Your task to perform on an android device: turn on translation in the chrome app Image 0: 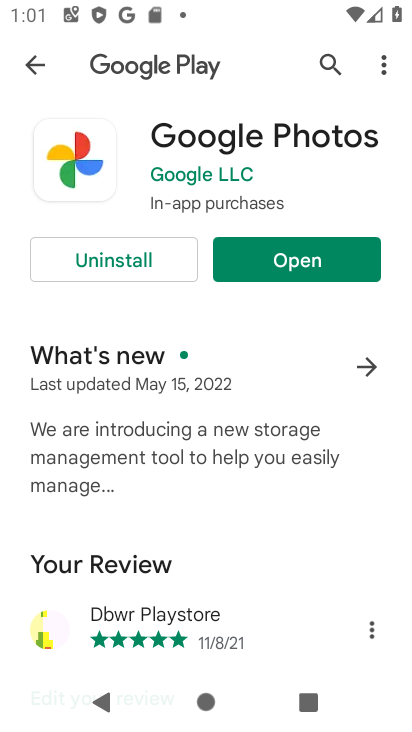
Step 0: drag from (375, 570) to (348, 488)
Your task to perform on an android device: turn on translation in the chrome app Image 1: 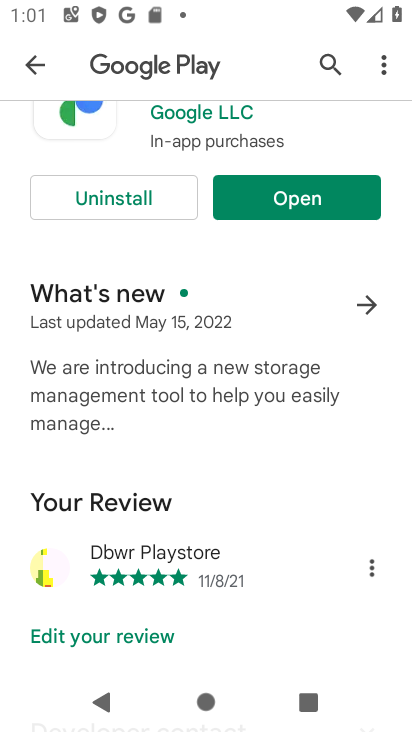
Step 1: press home button
Your task to perform on an android device: turn on translation in the chrome app Image 2: 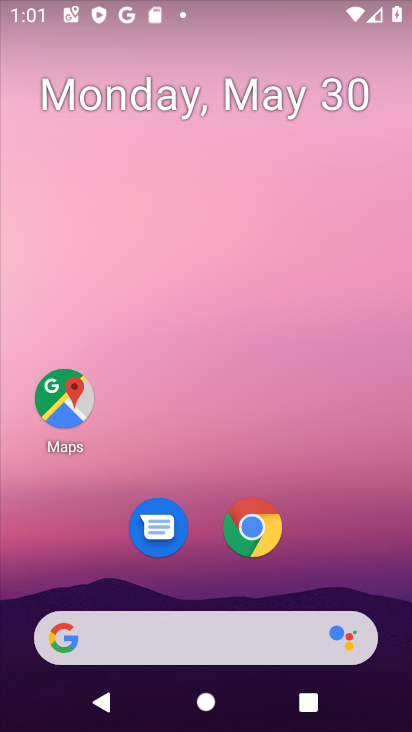
Step 2: drag from (355, 578) to (242, 66)
Your task to perform on an android device: turn on translation in the chrome app Image 3: 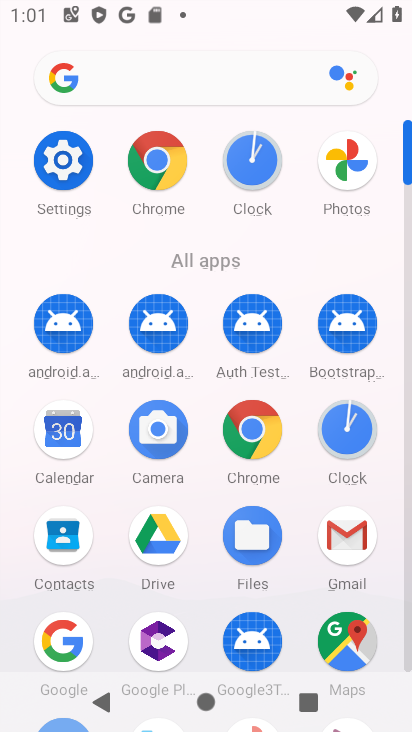
Step 3: click (158, 181)
Your task to perform on an android device: turn on translation in the chrome app Image 4: 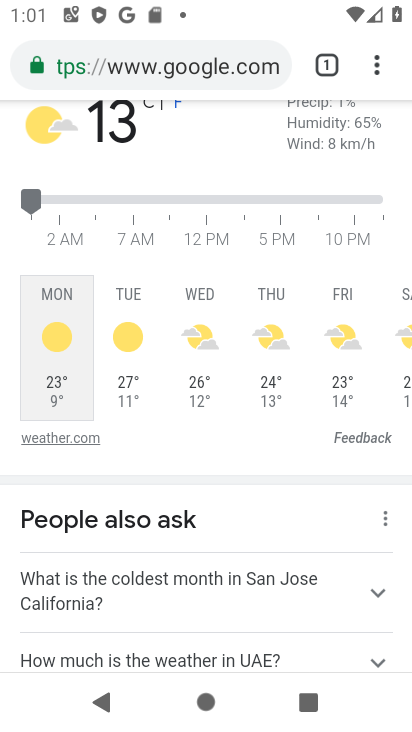
Step 4: click (375, 60)
Your task to perform on an android device: turn on translation in the chrome app Image 5: 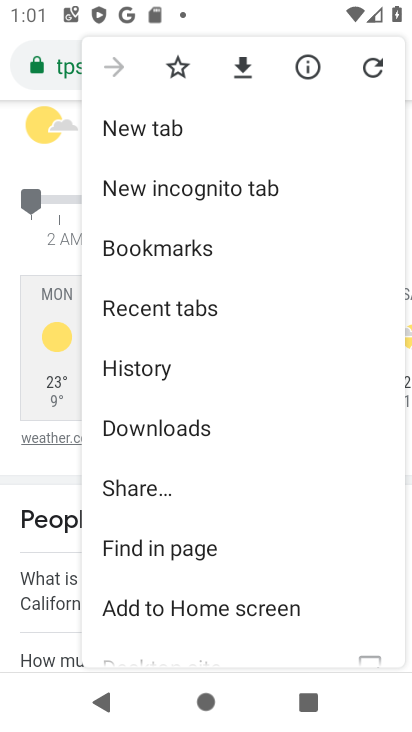
Step 5: drag from (285, 560) to (235, 145)
Your task to perform on an android device: turn on translation in the chrome app Image 6: 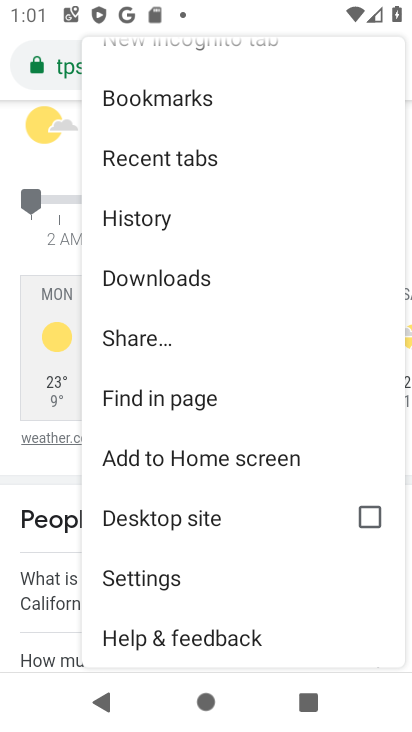
Step 6: click (179, 596)
Your task to perform on an android device: turn on translation in the chrome app Image 7: 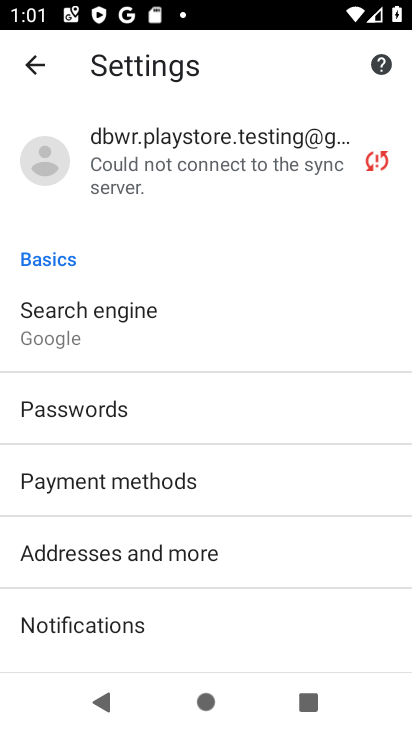
Step 7: drag from (249, 605) to (211, 241)
Your task to perform on an android device: turn on translation in the chrome app Image 8: 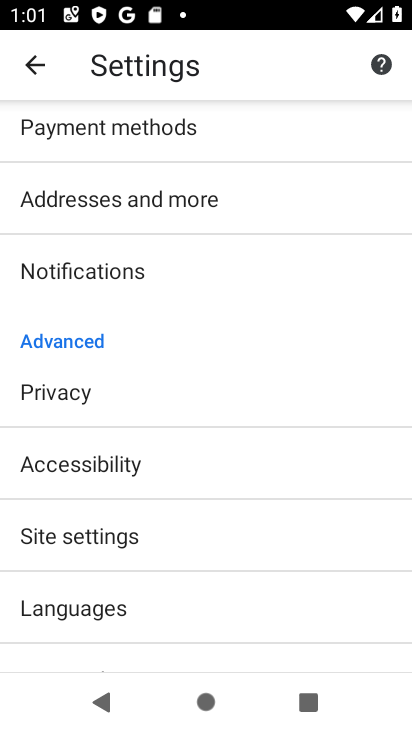
Step 8: click (180, 611)
Your task to perform on an android device: turn on translation in the chrome app Image 9: 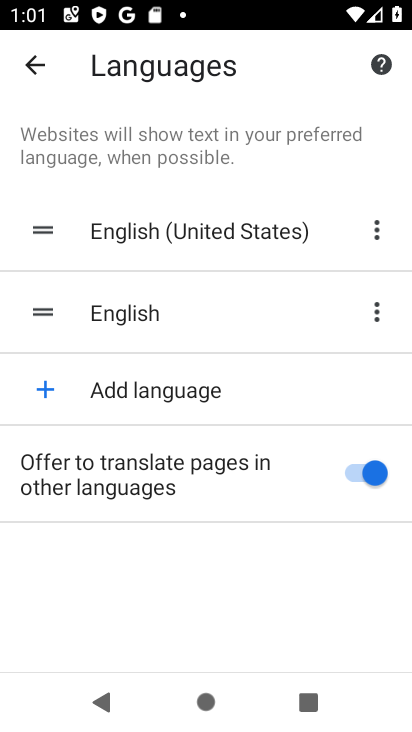
Step 9: task complete